Your task to perform on an android device: check google app version Image 0: 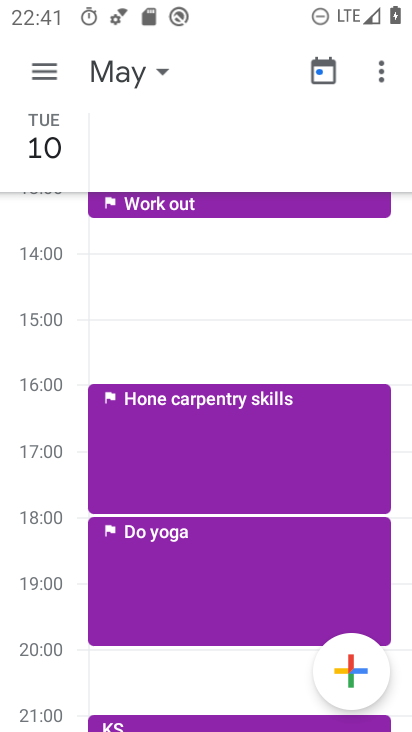
Step 0: press home button
Your task to perform on an android device: check google app version Image 1: 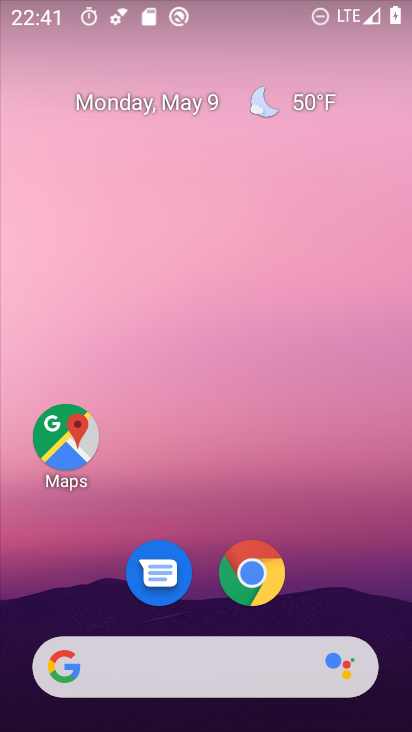
Step 1: drag from (343, 561) to (369, 104)
Your task to perform on an android device: check google app version Image 2: 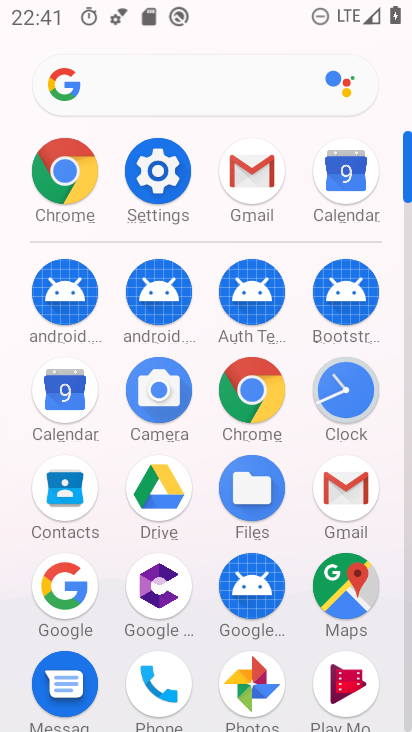
Step 2: click (61, 593)
Your task to perform on an android device: check google app version Image 3: 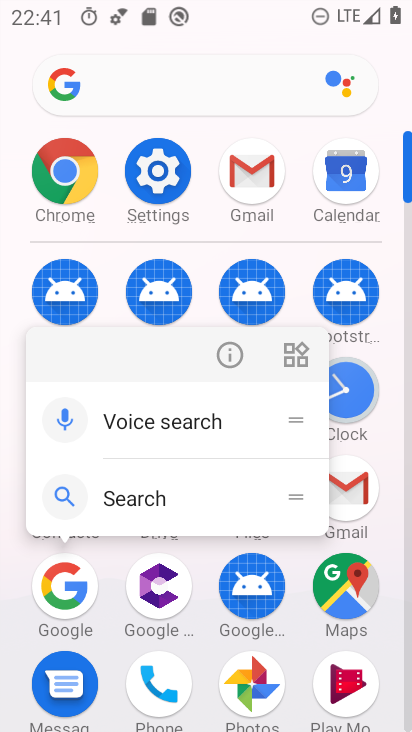
Step 3: click (224, 360)
Your task to perform on an android device: check google app version Image 4: 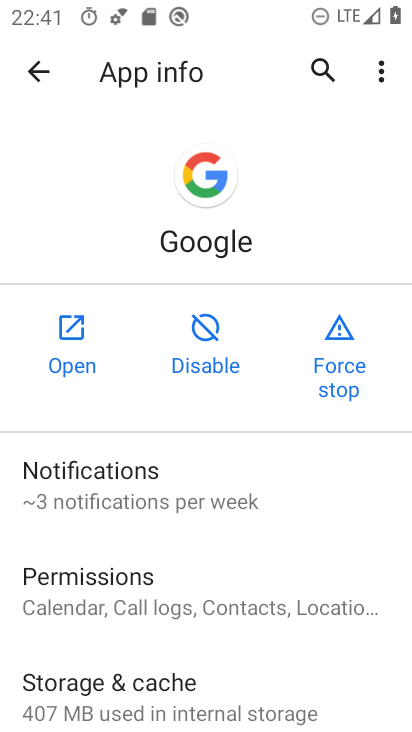
Step 4: drag from (209, 627) to (243, 120)
Your task to perform on an android device: check google app version Image 5: 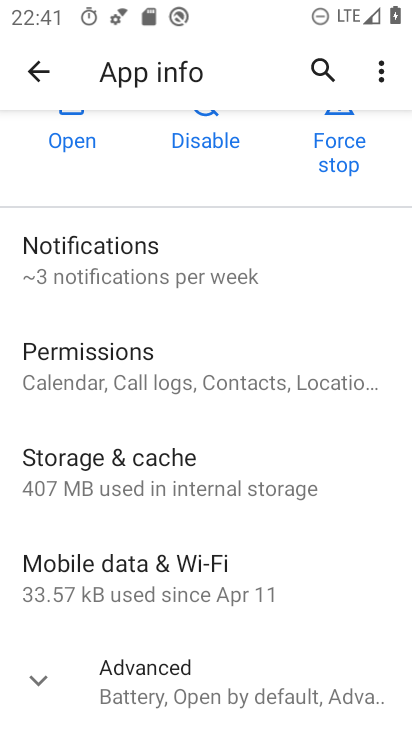
Step 5: click (167, 684)
Your task to perform on an android device: check google app version Image 6: 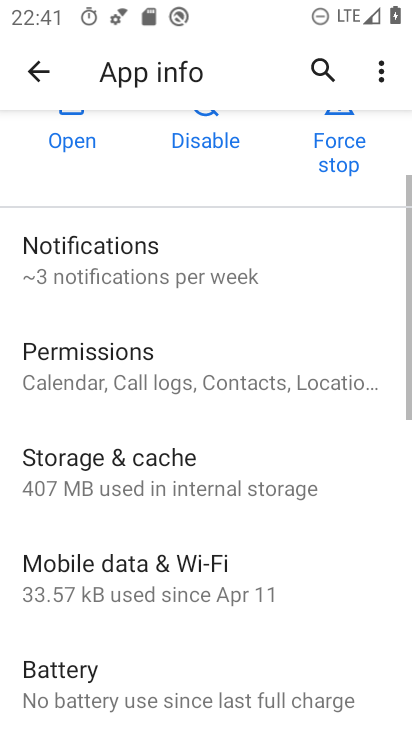
Step 6: task complete